Your task to perform on an android device: Open Amazon Image 0: 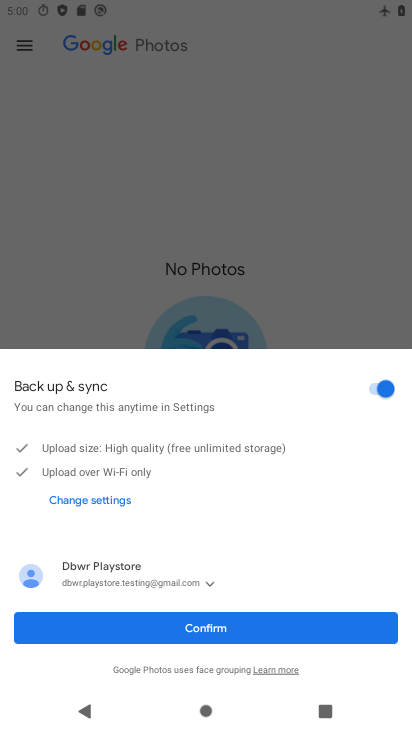
Step 0: press home button
Your task to perform on an android device: Open Amazon Image 1: 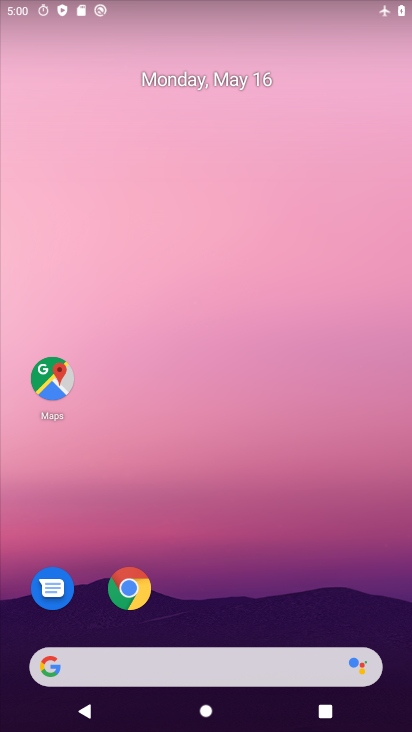
Step 1: drag from (251, 634) to (218, 152)
Your task to perform on an android device: Open Amazon Image 2: 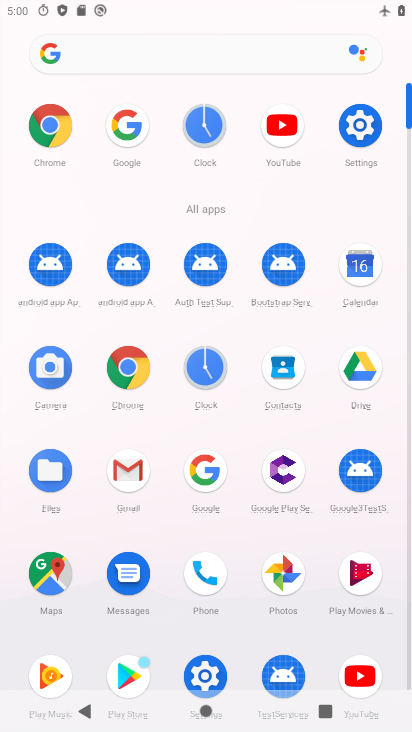
Step 2: click (54, 140)
Your task to perform on an android device: Open Amazon Image 3: 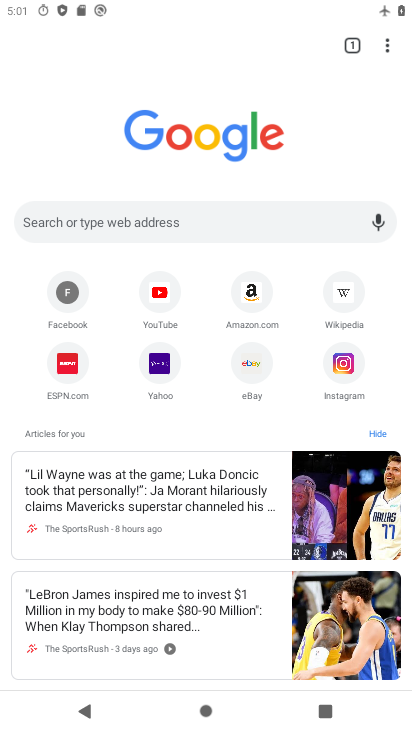
Step 3: click (251, 295)
Your task to perform on an android device: Open Amazon Image 4: 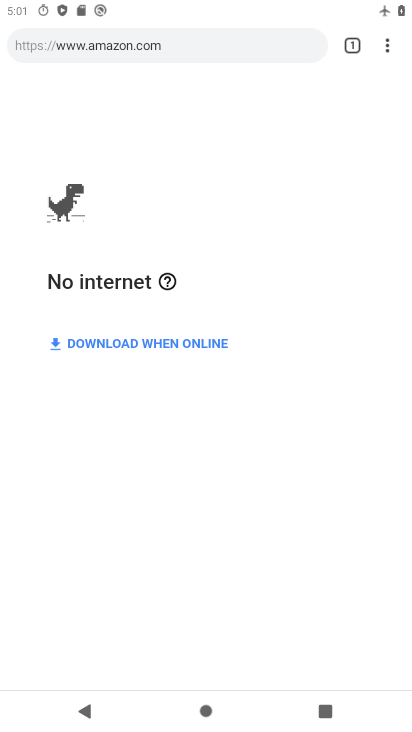
Step 4: task complete